Your task to perform on an android device: change the clock display to show seconds Image 0: 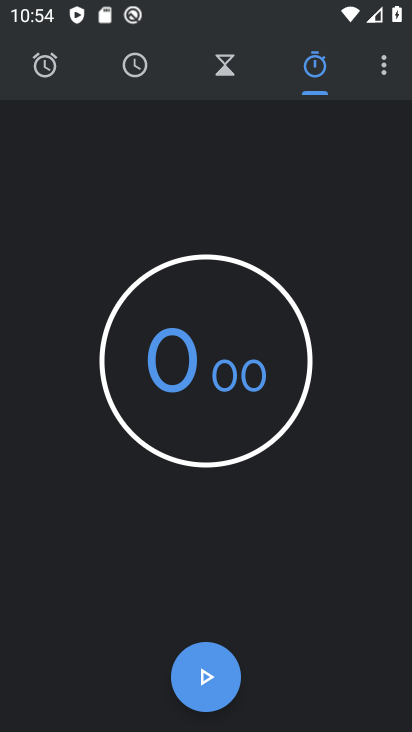
Step 0: drag from (381, 53) to (349, 128)
Your task to perform on an android device: change the clock display to show seconds Image 1: 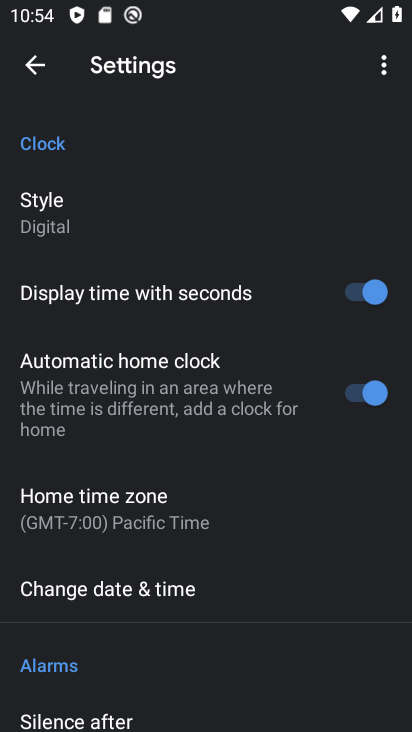
Step 1: task complete